Your task to perform on an android device: Go to network settings Image 0: 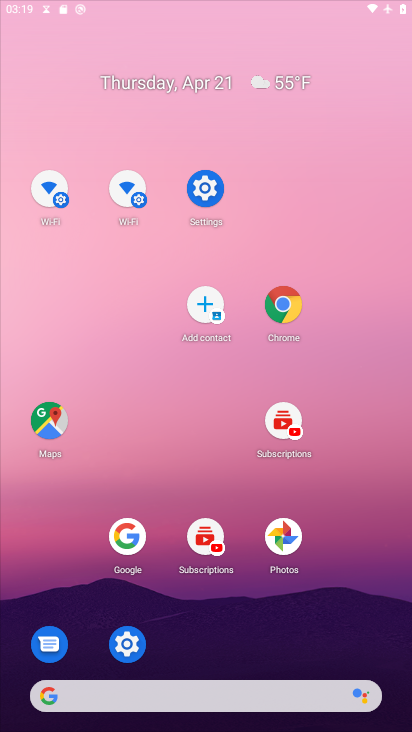
Step 0: press home button
Your task to perform on an android device: Go to network settings Image 1: 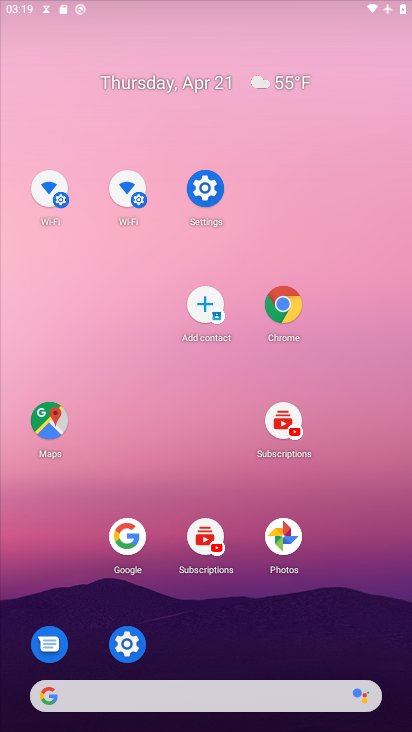
Step 1: drag from (174, 592) to (211, 33)
Your task to perform on an android device: Go to network settings Image 2: 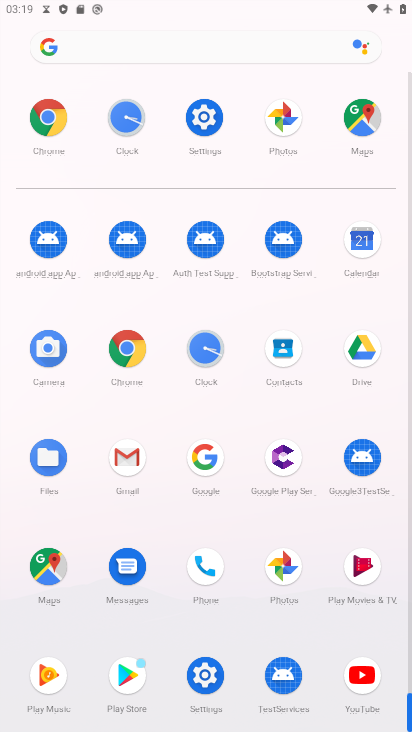
Step 2: click (204, 117)
Your task to perform on an android device: Go to network settings Image 3: 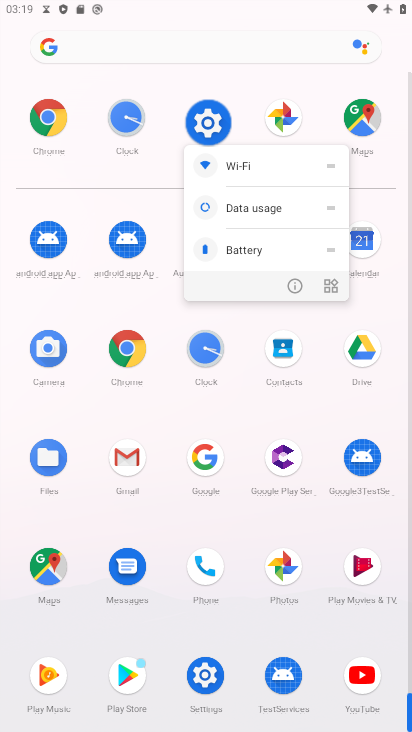
Step 3: click (207, 122)
Your task to perform on an android device: Go to network settings Image 4: 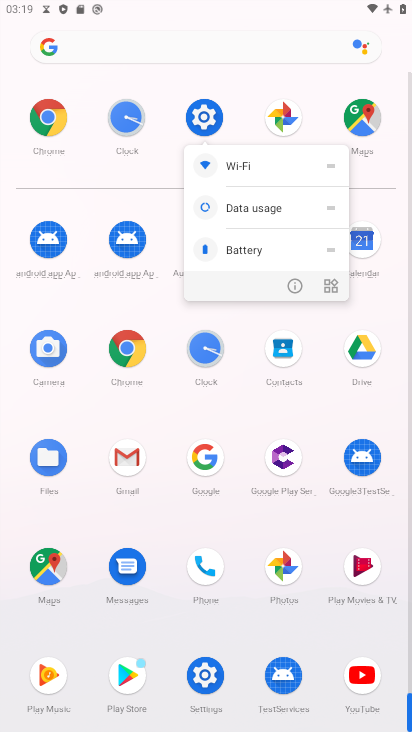
Step 4: click (209, 106)
Your task to perform on an android device: Go to network settings Image 5: 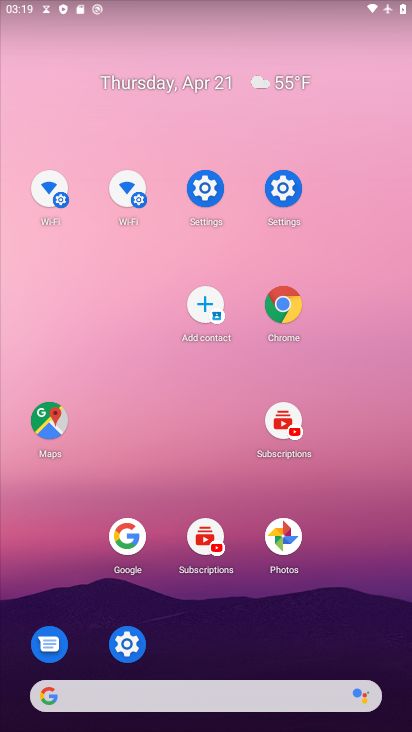
Step 5: drag from (83, 182) to (25, 16)
Your task to perform on an android device: Go to network settings Image 6: 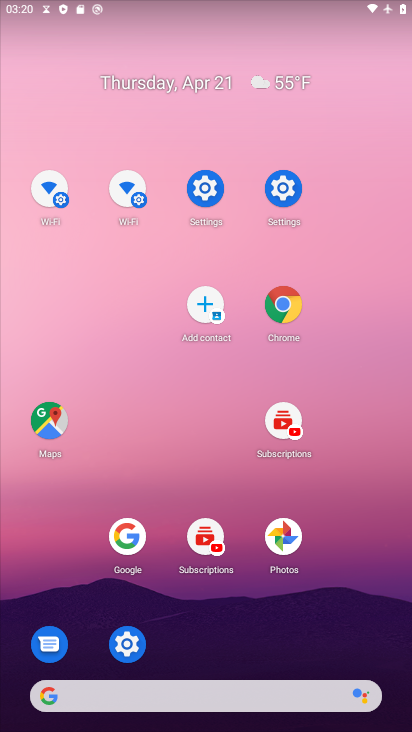
Step 6: drag from (243, 371) to (133, 24)
Your task to perform on an android device: Go to network settings Image 7: 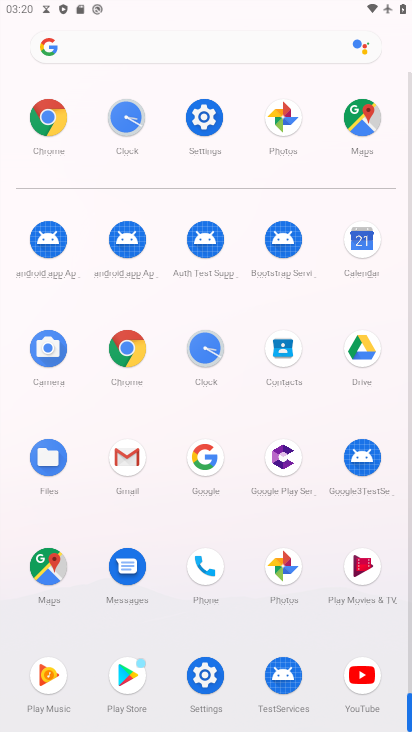
Step 7: click (198, 116)
Your task to perform on an android device: Go to network settings Image 8: 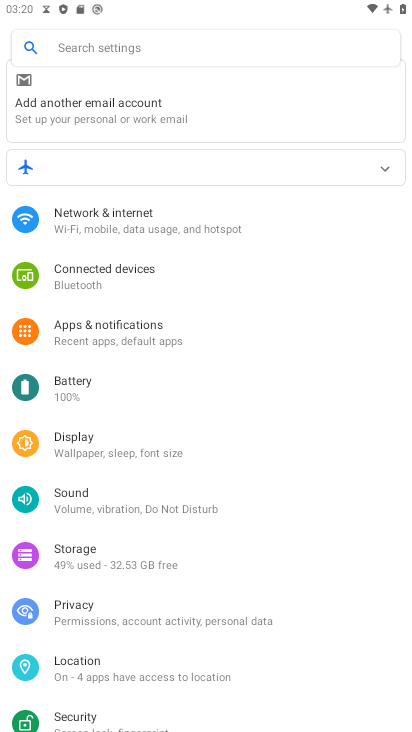
Step 8: click (108, 222)
Your task to perform on an android device: Go to network settings Image 9: 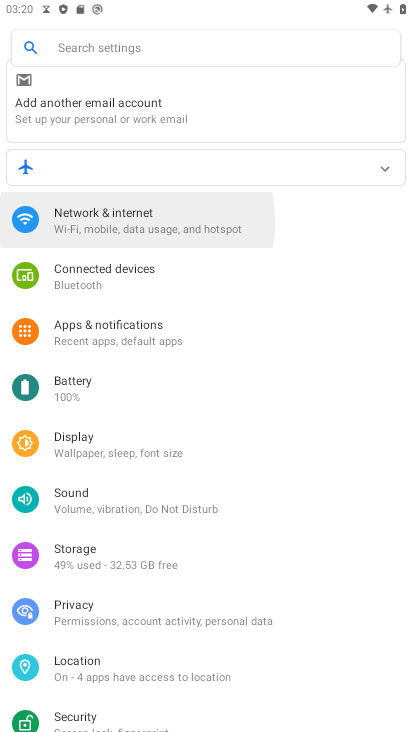
Step 9: click (108, 222)
Your task to perform on an android device: Go to network settings Image 10: 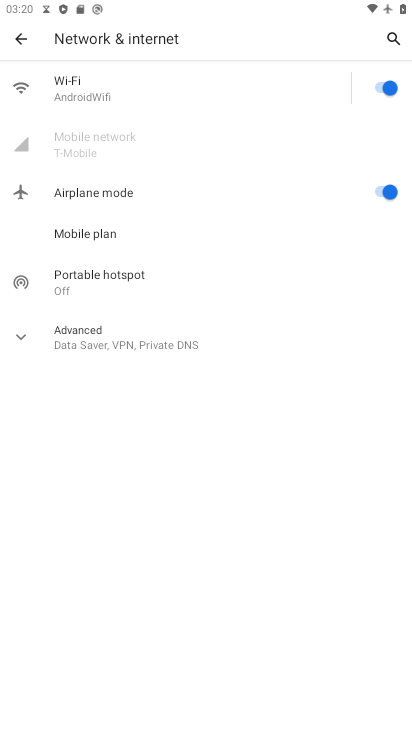
Step 10: task complete